Your task to perform on an android device: Open location settings Image 0: 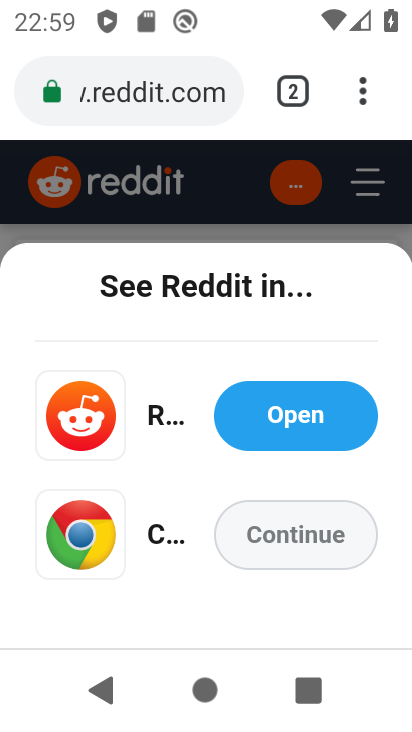
Step 0: press home button
Your task to perform on an android device: Open location settings Image 1: 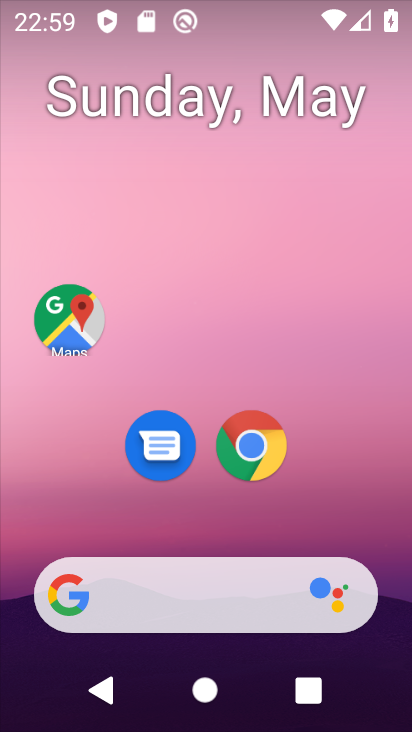
Step 1: drag from (264, 176) to (260, 36)
Your task to perform on an android device: Open location settings Image 2: 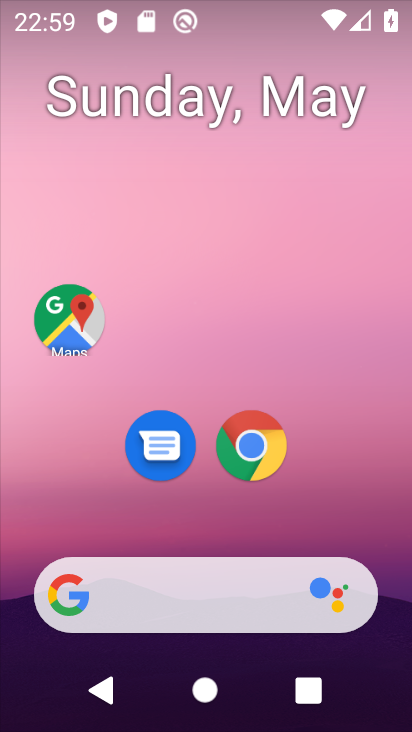
Step 2: drag from (321, 489) to (265, 0)
Your task to perform on an android device: Open location settings Image 3: 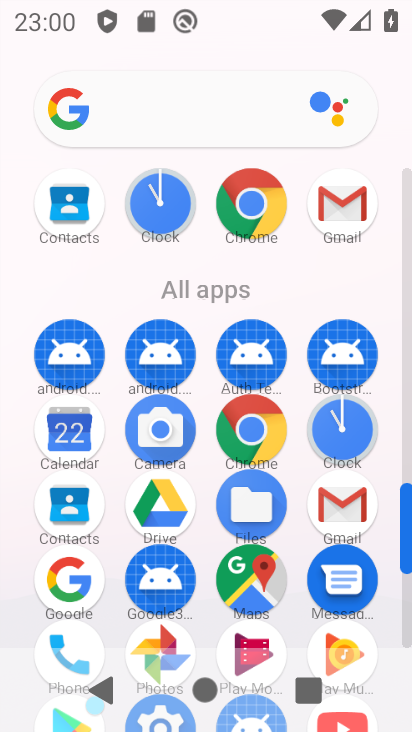
Step 3: drag from (303, 291) to (316, 15)
Your task to perform on an android device: Open location settings Image 4: 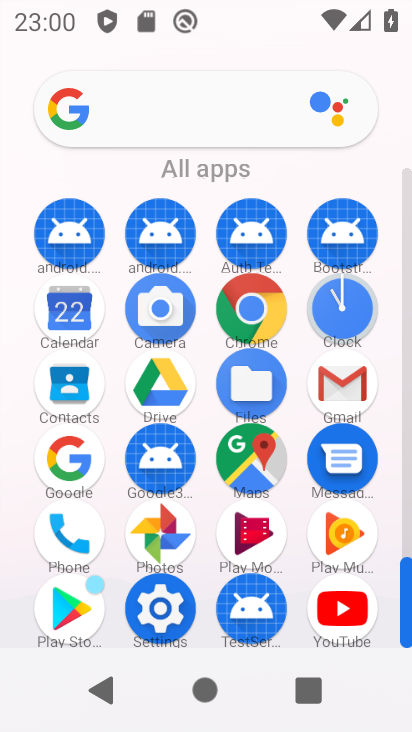
Step 4: click (154, 606)
Your task to perform on an android device: Open location settings Image 5: 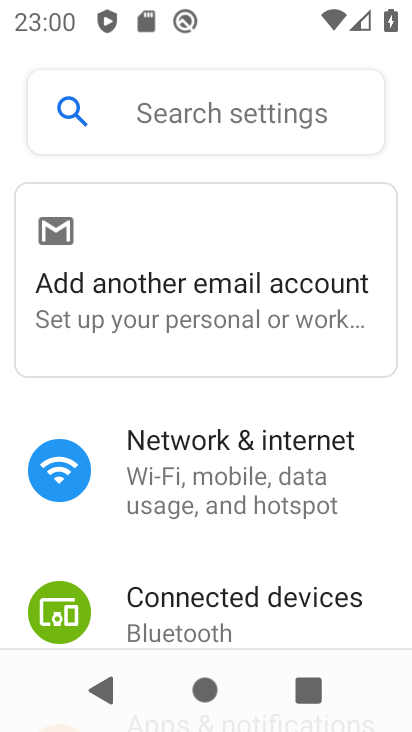
Step 5: drag from (351, 575) to (373, 108)
Your task to perform on an android device: Open location settings Image 6: 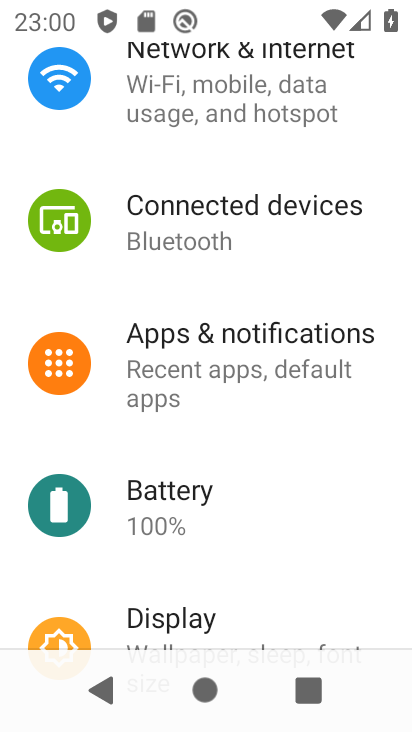
Step 6: drag from (305, 613) to (343, 81)
Your task to perform on an android device: Open location settings Image 7: 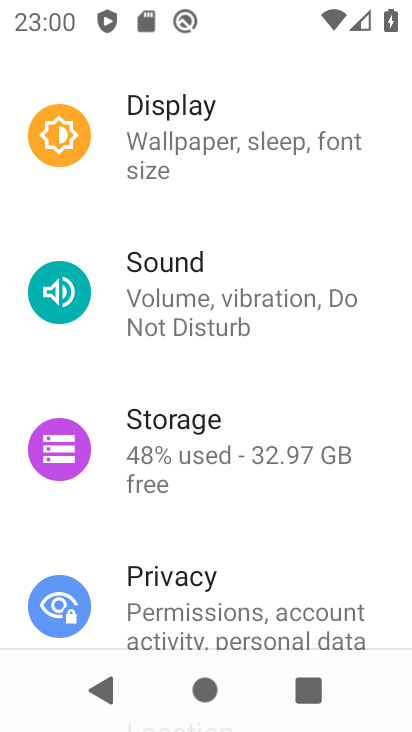
Step 7: drag from (343, 300) to (344, 153)
Your task to perform on an android device: Open location settings Image 8: 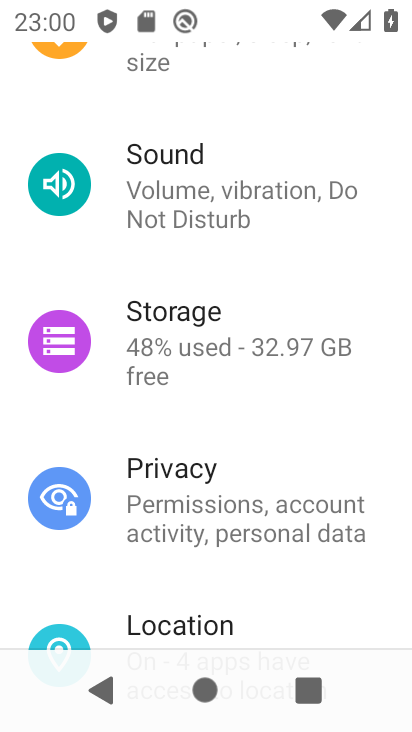
Step 8: drag from (313, 598) to (334, 154)
Your task to perform on an android device: Open location settings Image 9: 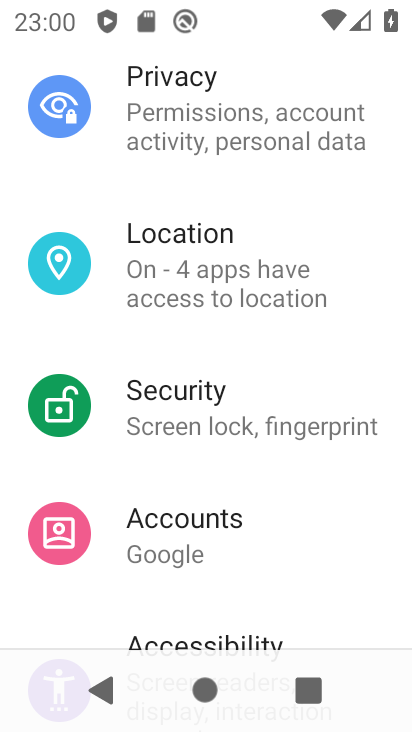
Step 9: click (162, 242)
Your task to perform on an android device: Open location settings Image 10: 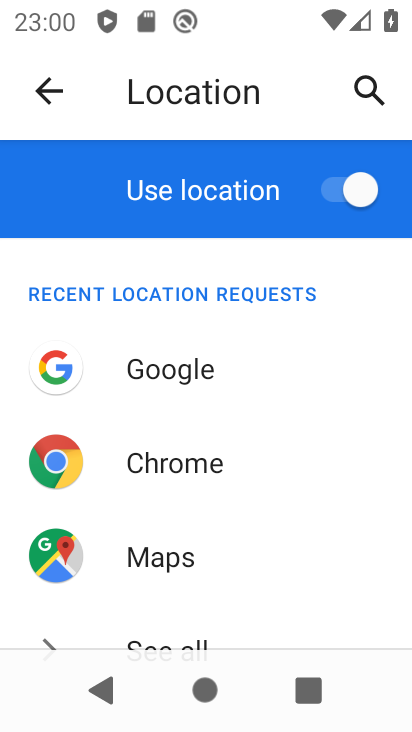
Step 10: task complete